Your task to perform on an android device: Add razer blade to the cart on walmart.com Image 0: 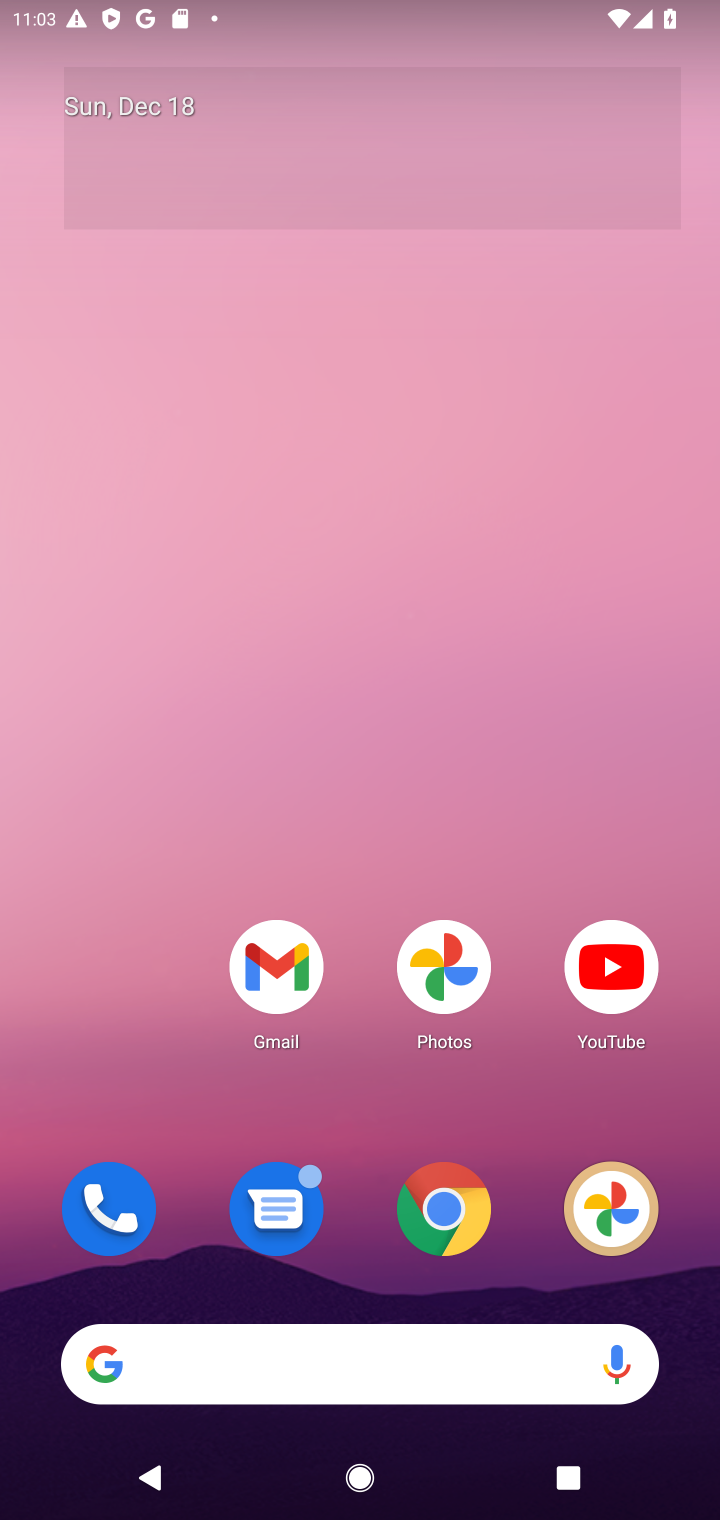
Step 0: task complete